Your task to perform on an android device: open app "NewsBreak: Local News & Alerts" (install if not already installed) Image 0: 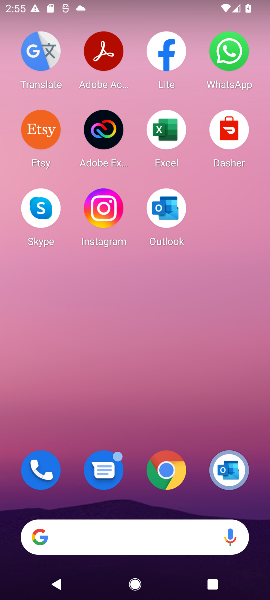
Step 0: drag from (110, 437) to (120, 7)
Your task to perform on an android device: open app "NewsBreak: Local News & Alerts" (install if not already installed) Image 1: 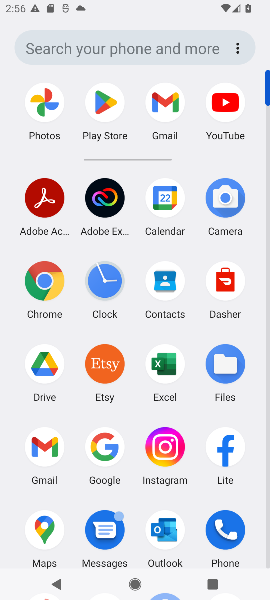
Step 1: click (98, 94)
Your task to perform on an android device: open app "NewsBreak: Local News & Alerts" (install if not already installed) Image 2: 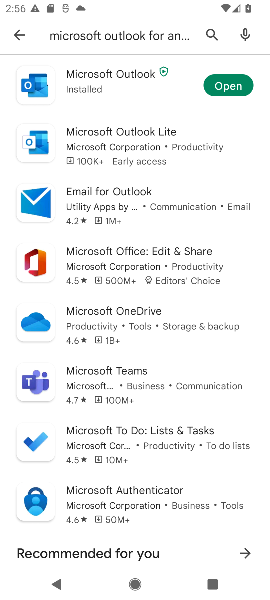
Step 2: click (23, 21)
Your task to perform on an android device: open app "NewsBreak: Local News & Alerts" (install if not already installed) Image 3: 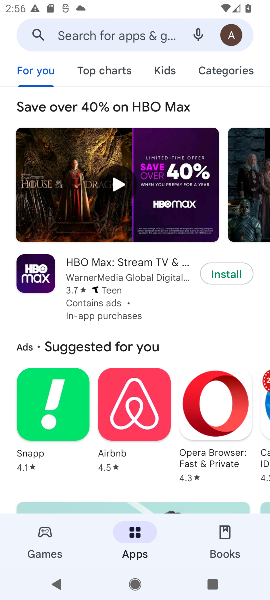
Step 3: click (117, 31)
Your task to perform on an android device: open app "NewsBreak: Local News & Alerts" (install if not already installed) Image 4: 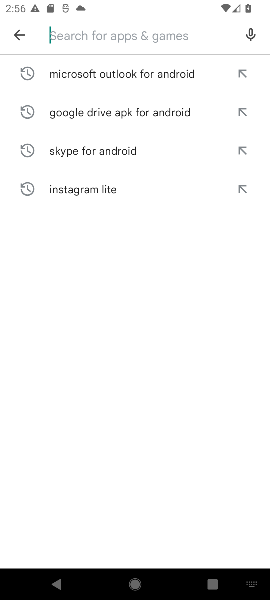
Step 4: type "NewsBreak: Local News & Alerts "
Your task to perform on an android device: open app "NewsBreak: Local News & Alerts" (install if not already installed) Image 5: 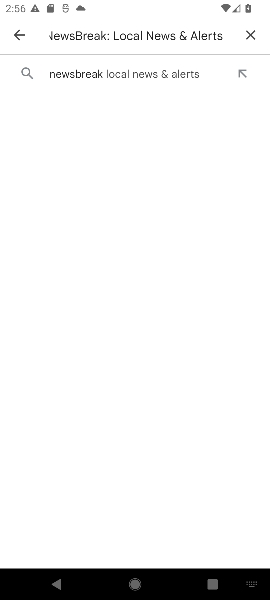
Step 5: click (159, 75)
Your task to perform on an android device: open app "NewsBreak: Local News & Alerts" (install if not already installed) Image 6: 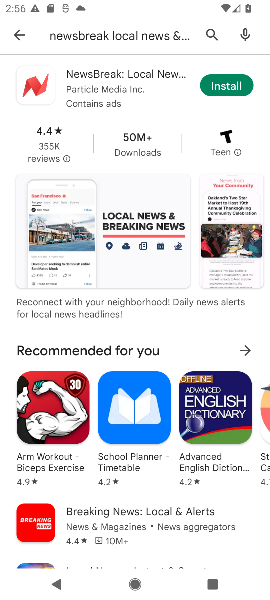
Step 6: click (218, 75)
Your task to perform on an android device: open app "NewsBreak: Local News & Alerts" (install if not already installed) Image 7: 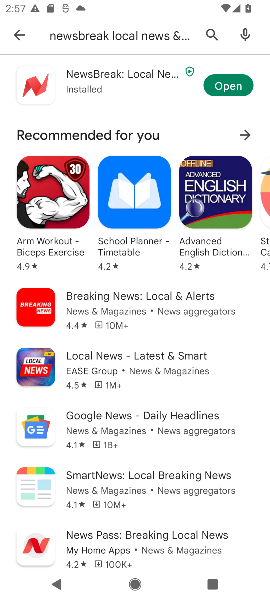
Step 7: click (222, 89)
Your task to perform on an android device: open app "NewsBreak: Local News & Alerts" (install if not already installed) Image 8: 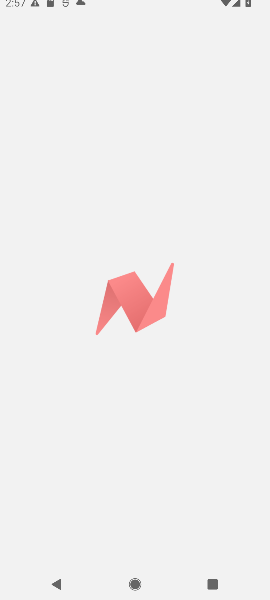
Step 8: task complete